Your task to perform on an android device: Search for seafood restaurants on Google Maps Image 0: 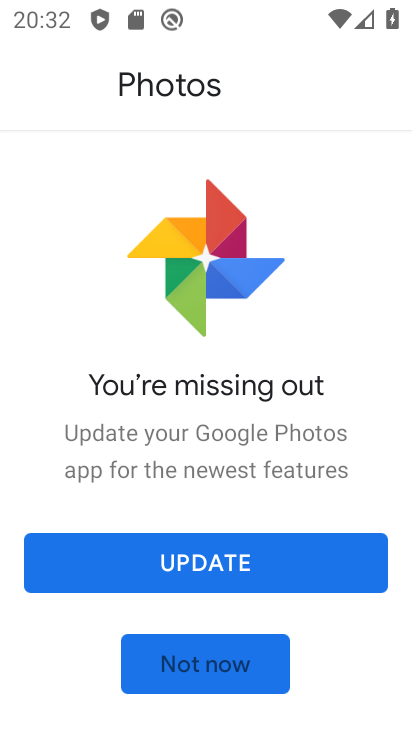
Step 0: press home button
Your task to perform on an android device: Search for seafood restaurants on Google Maps Image 1: 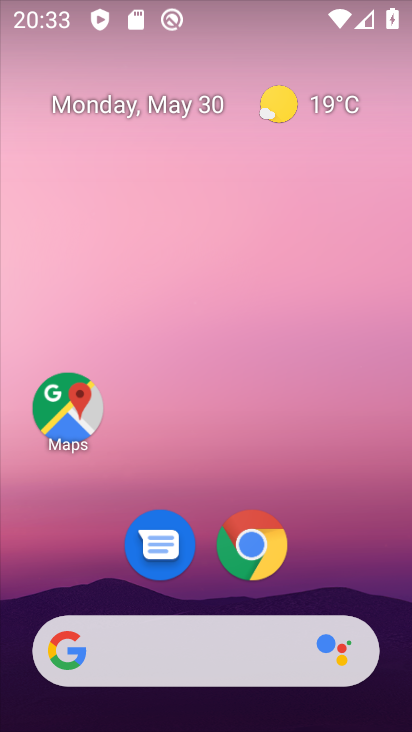
Step 1: click (67, 410)
Your task to perform on an android device: Search for seafood restaurants on Google Maps Image 2: 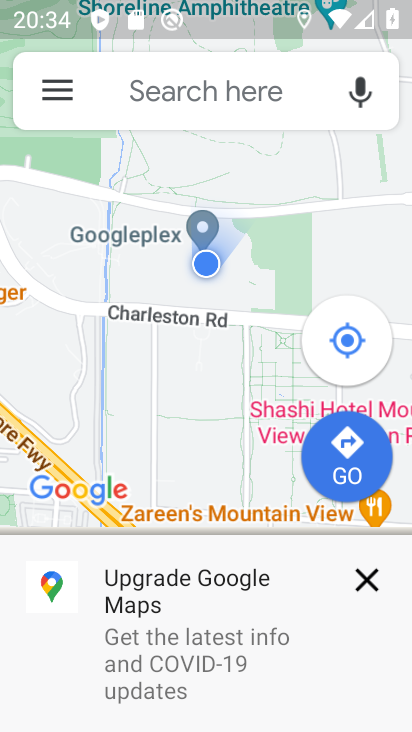
Step 2: click (228, 91)
Your task to perform on an android device: Search for seafood restaurants on Google Maps Image 3: 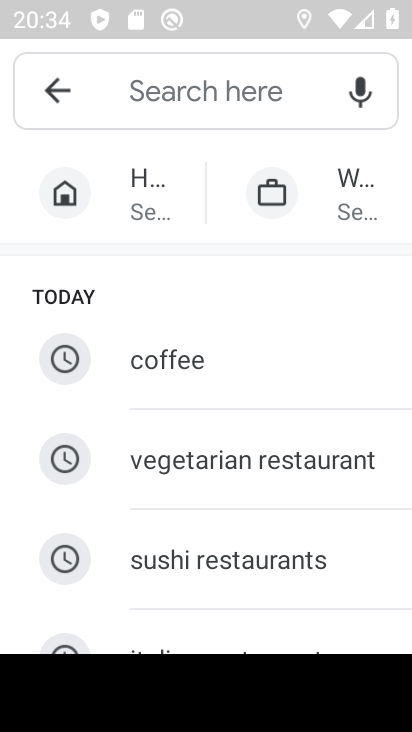
Step 3: type "seafood restaurants"
Your task to perform on an android device: Search for seafood restaurants on Google Maps Image 4: 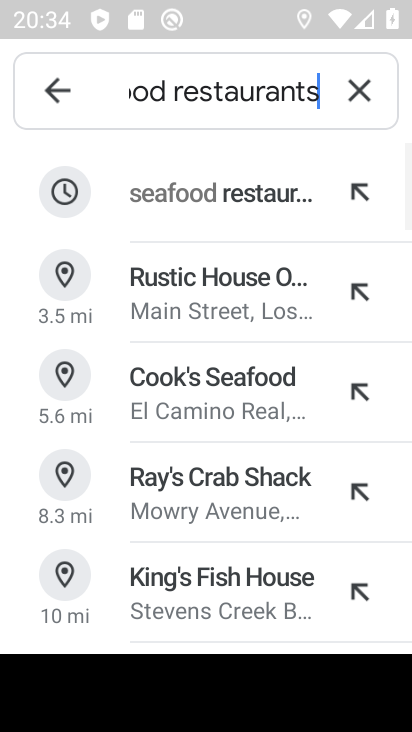
Step 4: click (194, 208)
Your task to perform on an android device: Search for seafood restaurants on Google Maps Image 5: 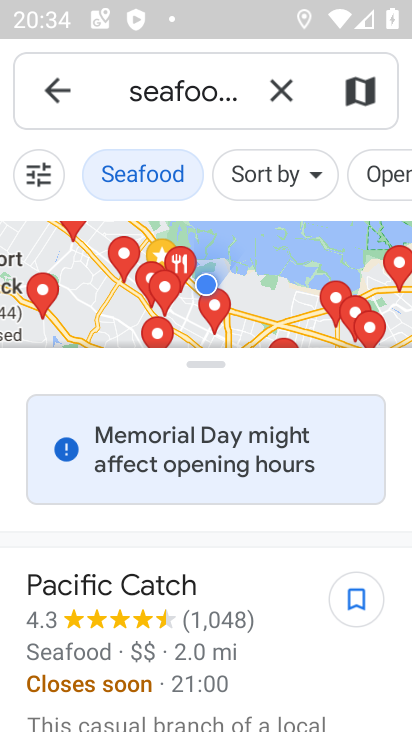
Step 5: task complete